Your task to perform on an android device: toggle notification dots Image 0: 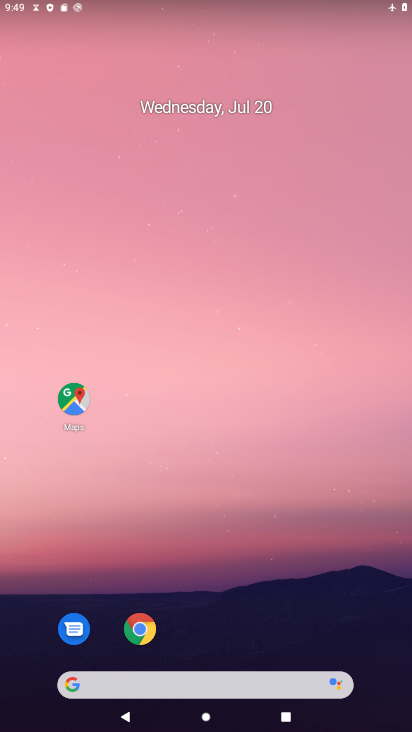
Step 0: drag from (260, 473) to (233, 5)
Your task to perform on an android device: toggle notification dots Image 1: 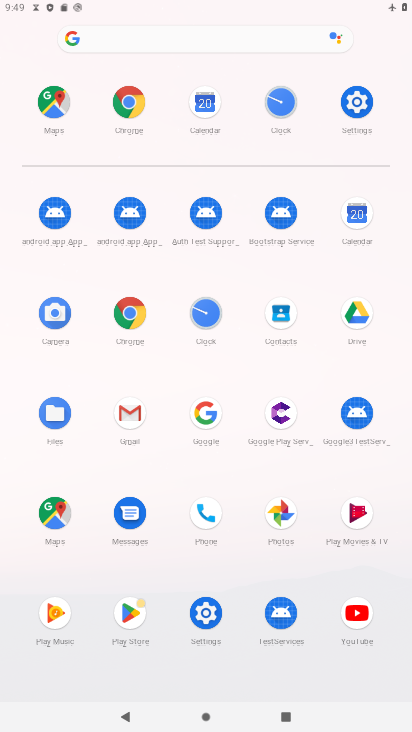
Step 1: click (356, 105)
Your task to perform on an android device: toggle notification dots Image 2: 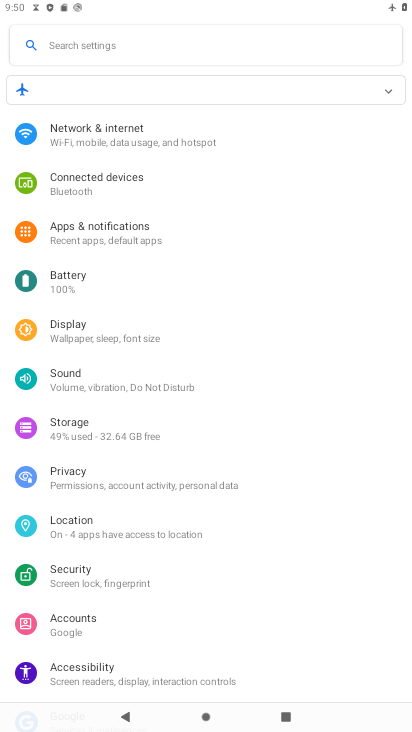
Step 2: click (118, 236)
Your task to perform on an android device: toggle notification dots Image 3: 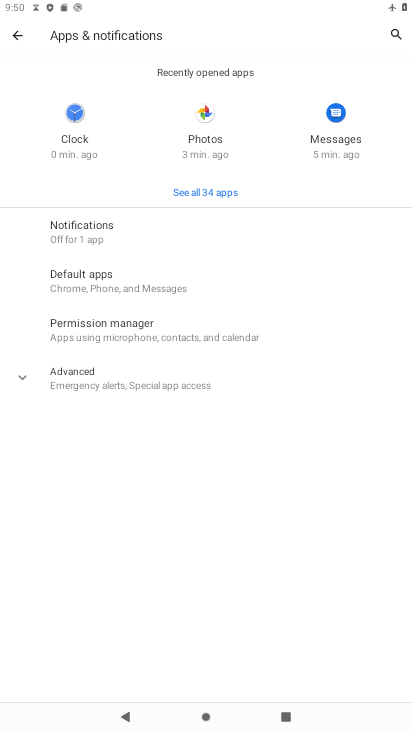
Step 3: click (97, 234)
Your task to perform on an android device: toggle notification dots Image 4: 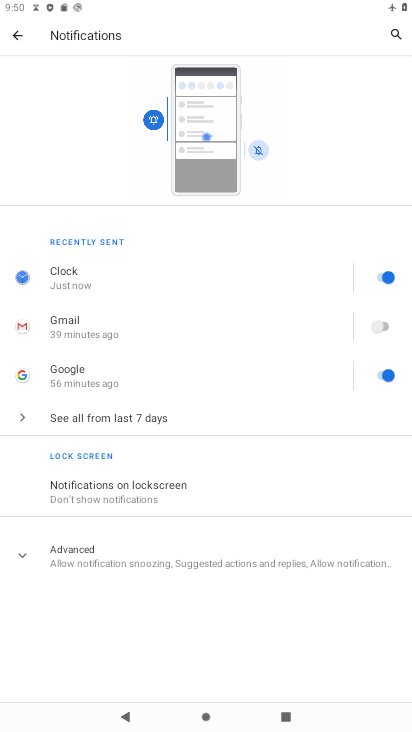
Step 4: click (102, 558)
Your task to perform on an android device: toggle notification dots Image 5: 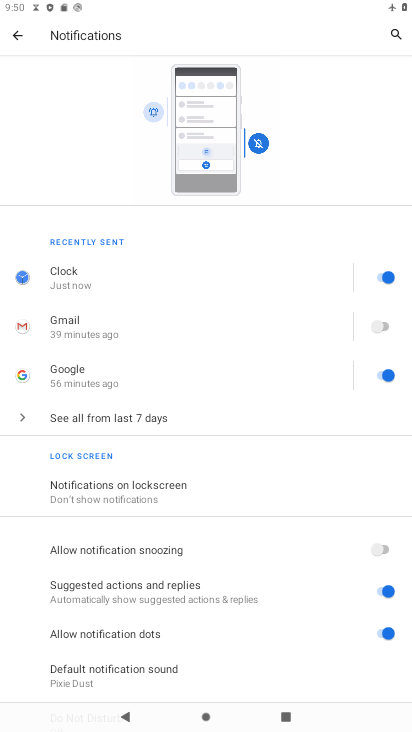
Step 5: drag from (132, 619) to (133, 392)
Your task to perform on an android device: toggle notification dots Image 6: 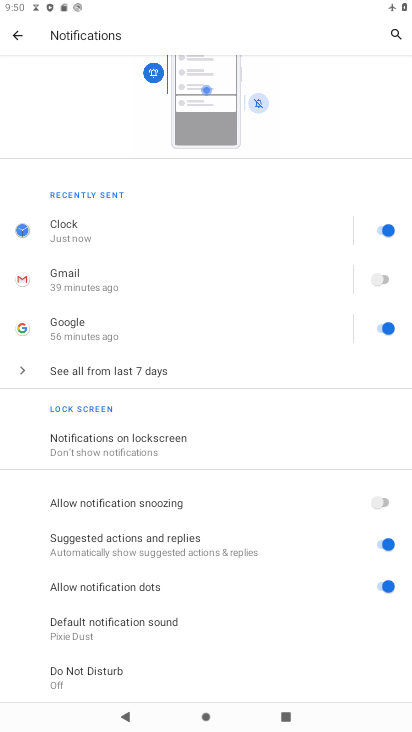
Step 6: click (388, 587)
Your task to perform on an android device: toggle notification dots Image 7: 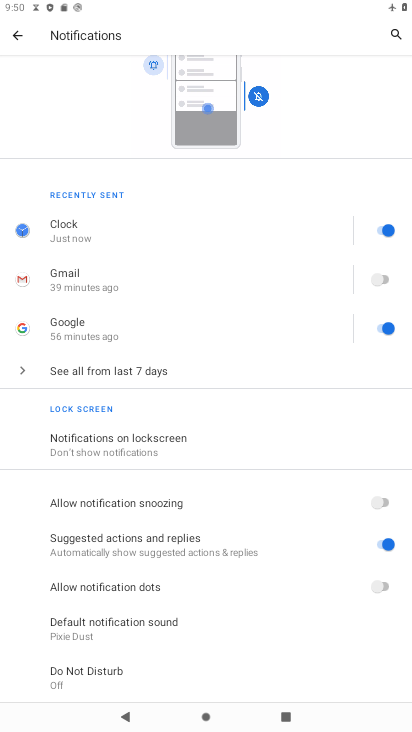
Step 7: task complete